Your task to perform on an android device: Open privacy settings Image 0: 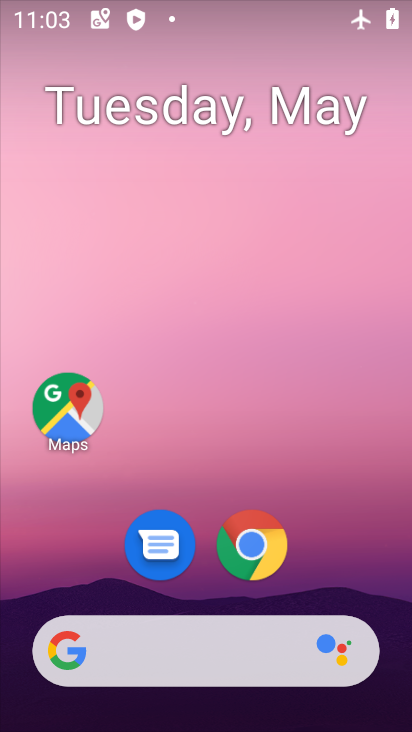
Step 0: drag from (267, 634) to (309, 124)
Your task to perform on an android device: Open privacy settings Image 1: 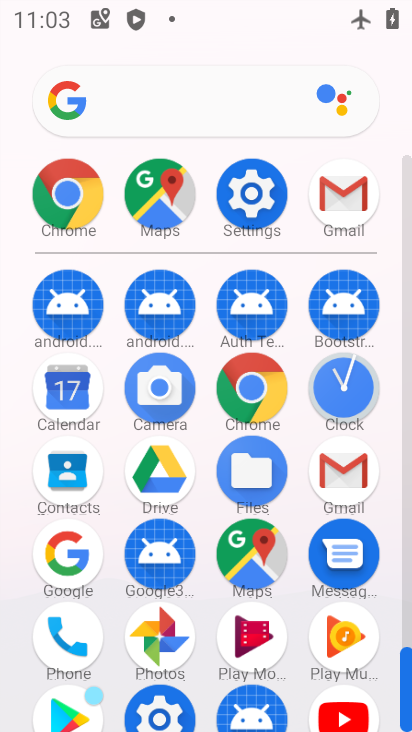
Step 1: click (260, 194)
Your task to perform on an android device: Open privacy settings Image 2: 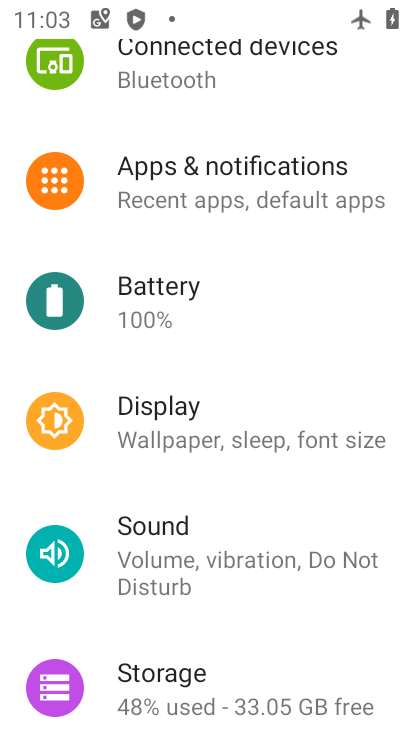
Step 2: drag from (278, 227) to (265, 630)
Your task to perform on an android device: Open privacy settings Image 3: 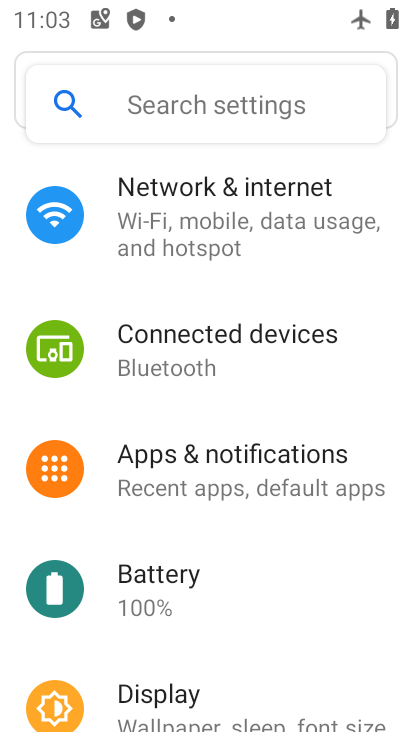
Step 3: drag from (226, 536) to (224, 280)
Your task to perform on an android device: Open privacy settings Image 4: 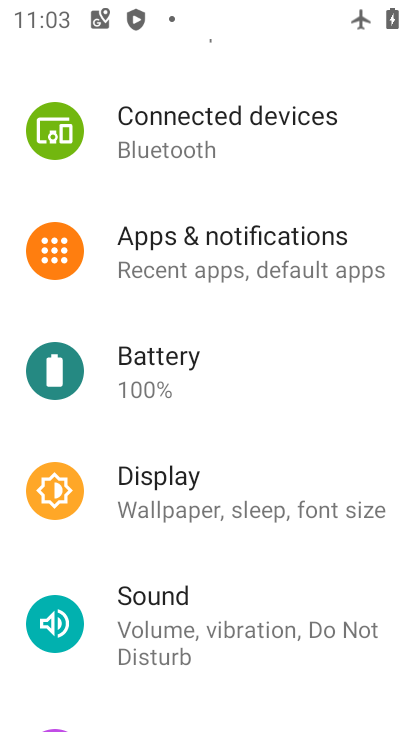
Step 4: drag from (178, 542) to (226, 354)
Your task to perform on an android device: Open privacy settings Image 5: 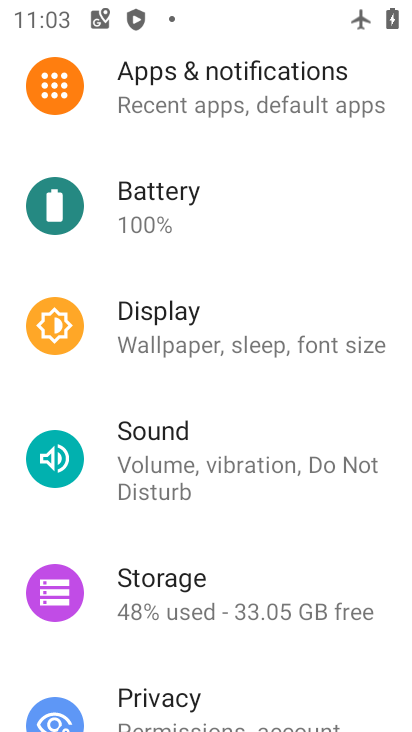
Step 5: drag from (208, 504) to (253, 334)
Your task to perform on an android device: Open privacy settings Image 6: 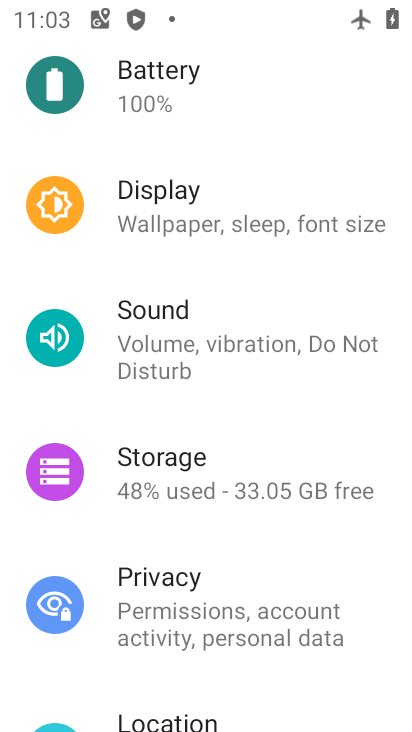
Step 6: click (230, 613)
Your task to perform on an android device: Open privacy settings Image 7: 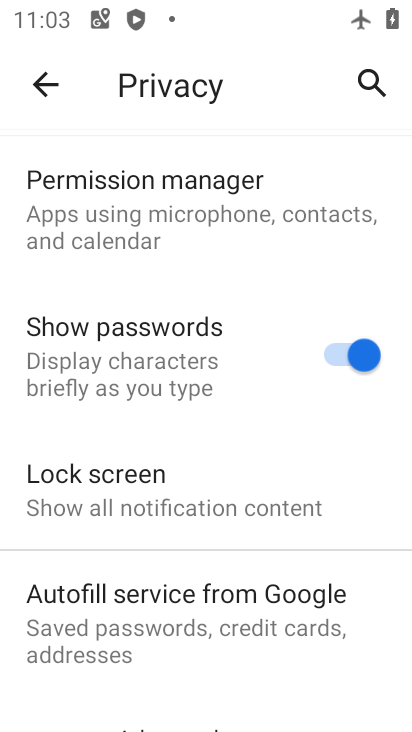
Step 7: task complete